Your task to perform on an android device: Go to Yahoo.com Image 0: 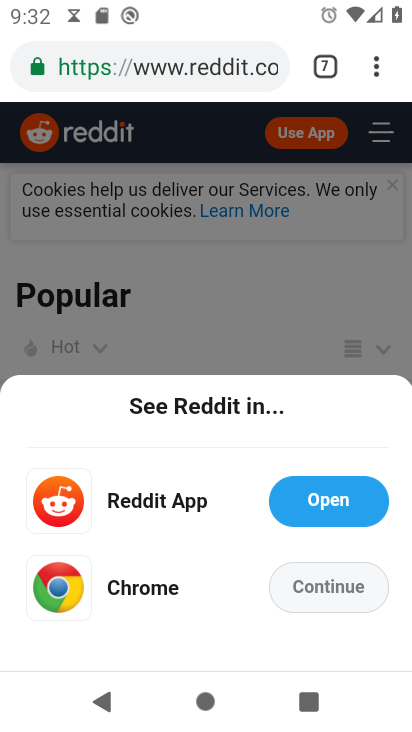
Step 0: drag from (374, 71) to (211, 138)
Your task to perform on an android device: Go to Yahoo.com Image 1: 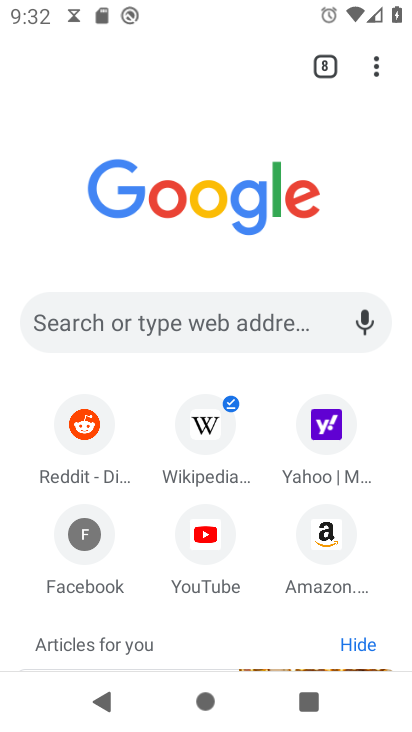
Step 1: click (316, 427)
Your task to perform on an android device: Go to Yahoo.com Image 2: 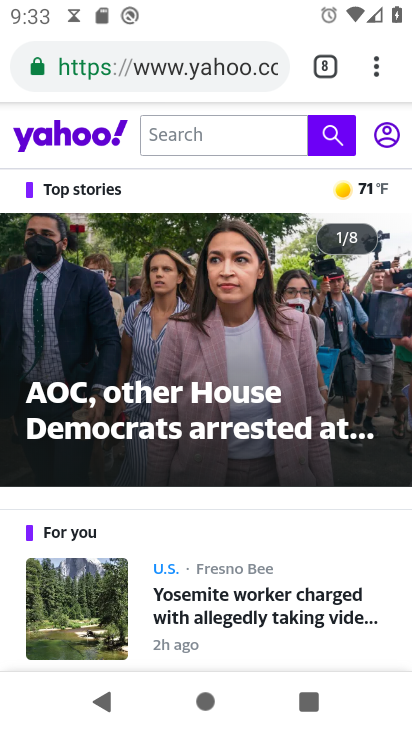
Step 2: task complete